Your task to perform on an android device: When is my next appointment? Image 0: 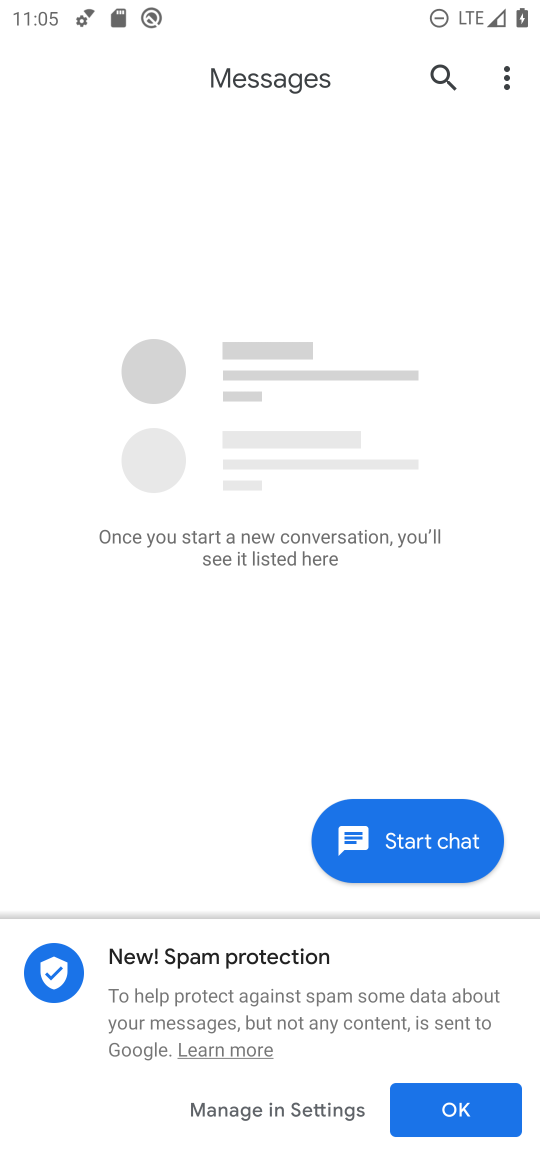
Step 0: press home button
Your task to perform on an android device: When is my next appointment? Image 1: 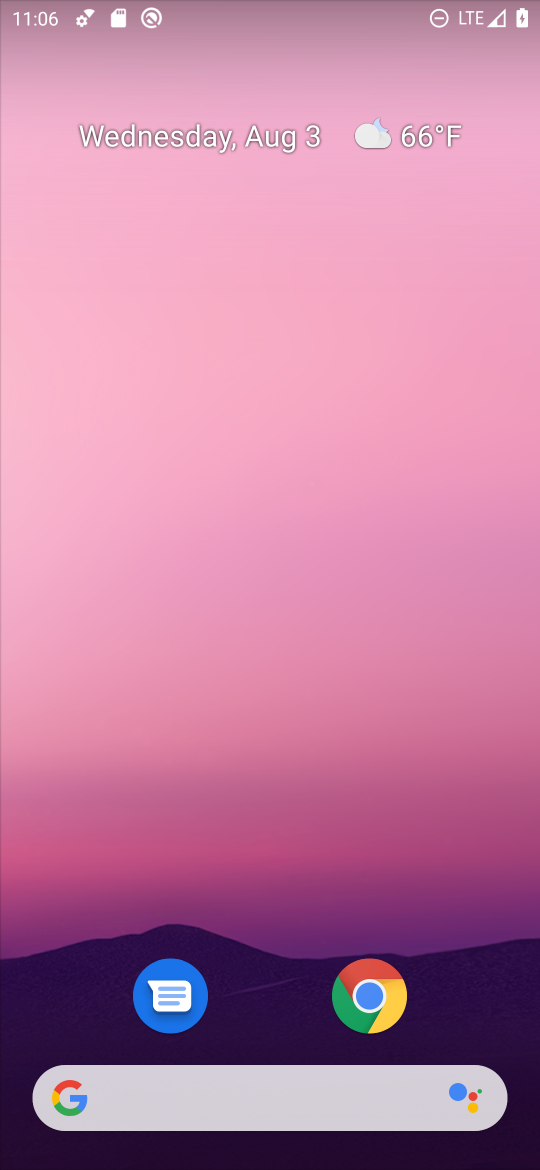
Step 1: drag from (280, 882) to (311, 68)
Your task to perform on an android device: When is my next appointment? Image 2: 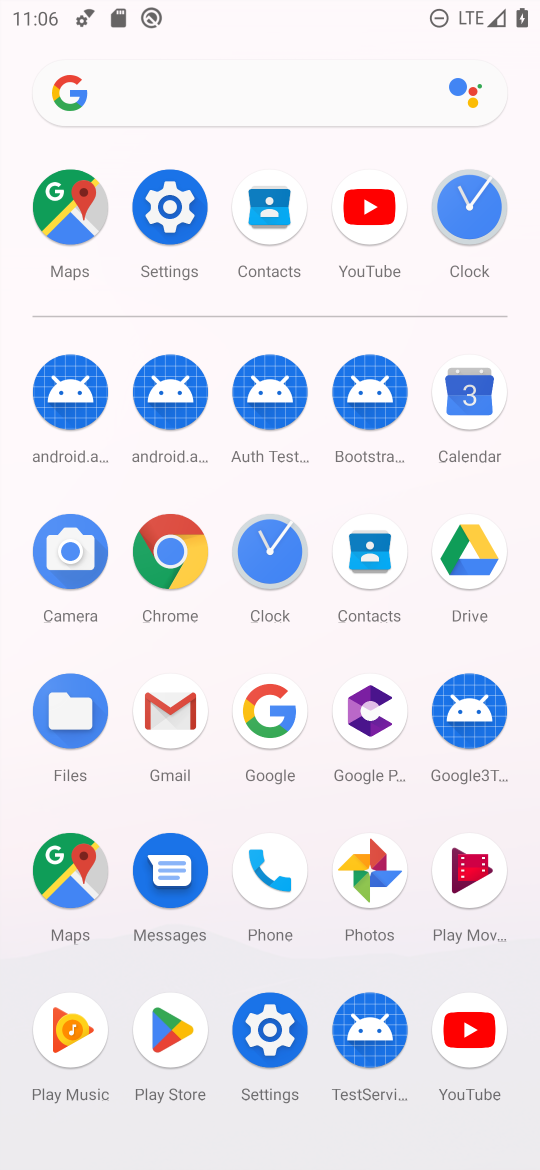
Step 2: click (466, 399)
Your task to perform on an android device: When is my next appointment? Image 3: 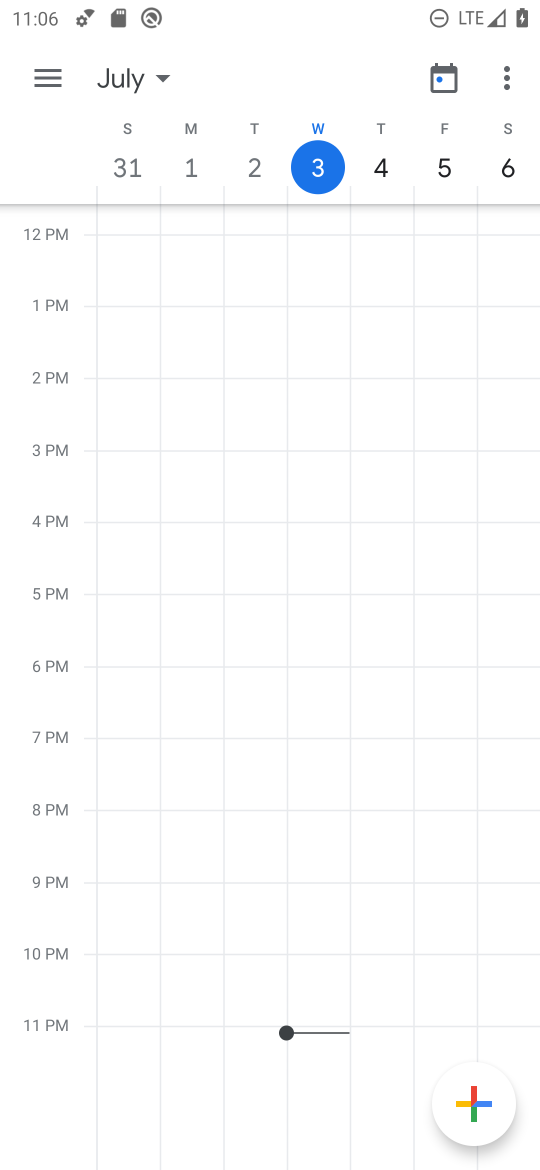
Step 3: click (307, 146)
Your task to perform on an android device: When is my next appointment? Image 4: 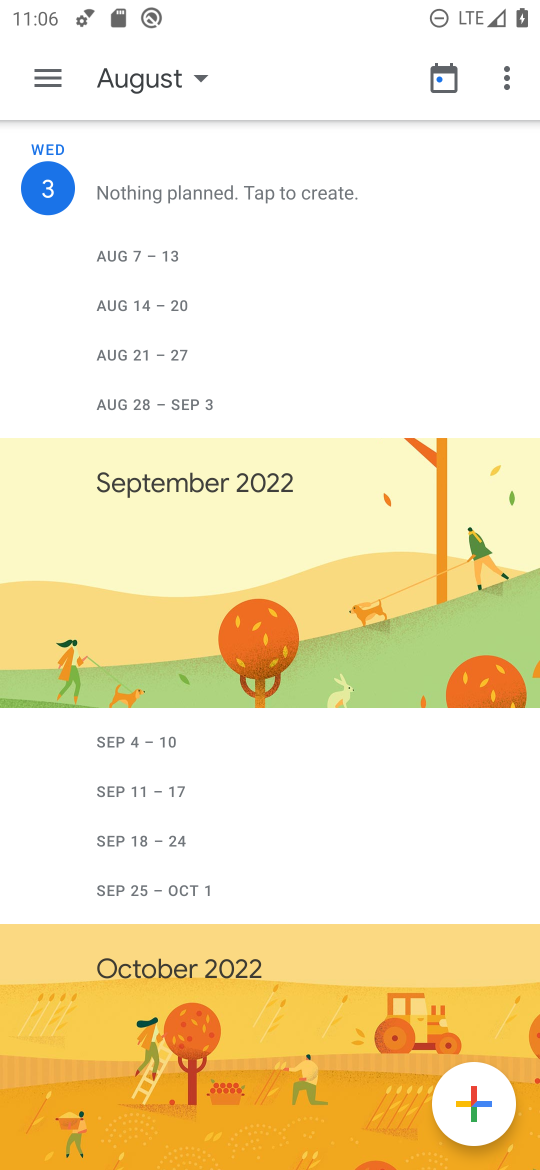
Step 4: task complete